Your task to perform on an android device: Show me the alarms in the clock app Image 0: 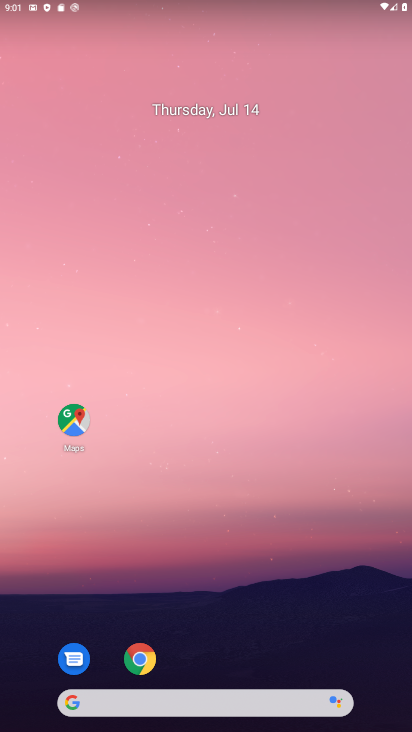
Step 0: press home button
Your task to perform on an android device: Show me the alarms in the clock app Image 1: 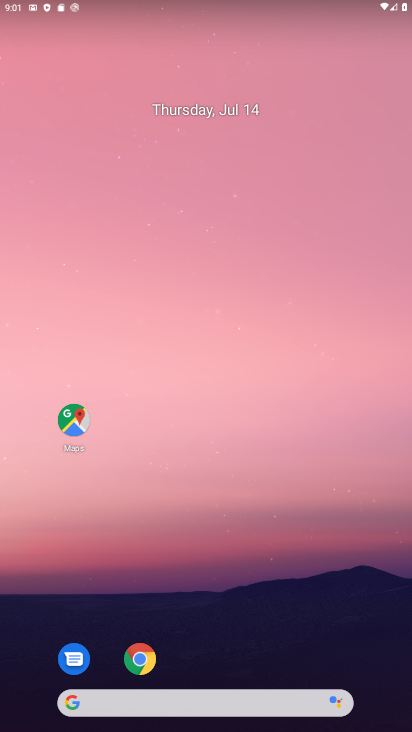
Step 1: drag from (291, 649) to (408, 100)
Your task to perform on an android device: Show me the alarms in the clock app Image 2: 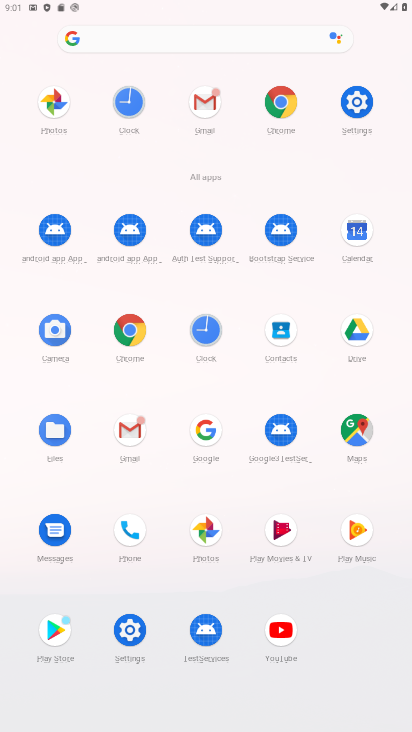
Step 2: click (127, 98)
Your task to perform on an android device: Show me the alarms in the clock app Image 3: 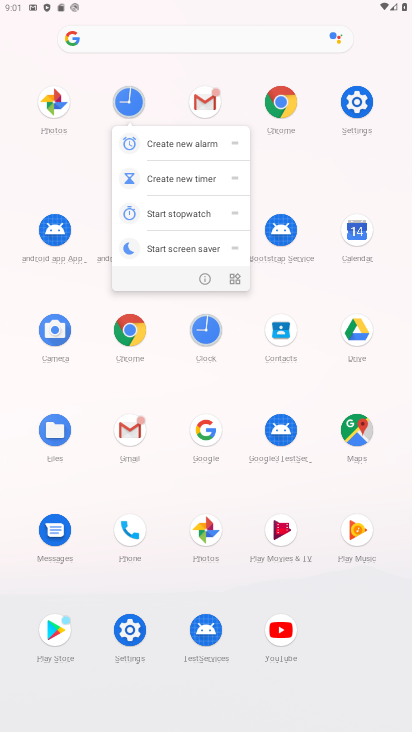
Step 3: click (127, 98)
Your task to perform on an android device: Show me the alarms in the clock app Image 4: 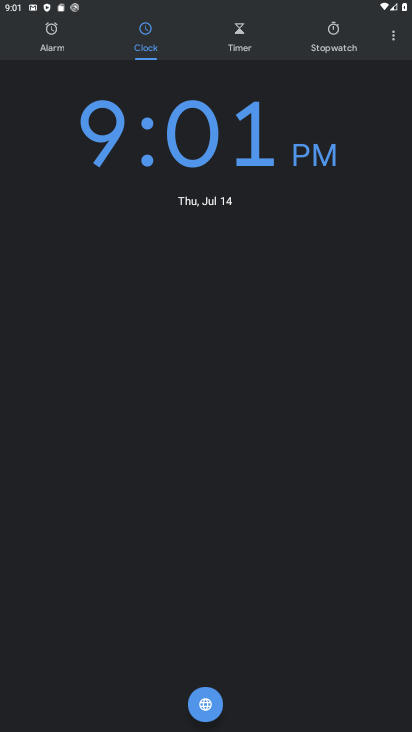
Step 4: click (45, 37)
Your task to perform on an android device: Show me the alarms in the clock app Image 5: 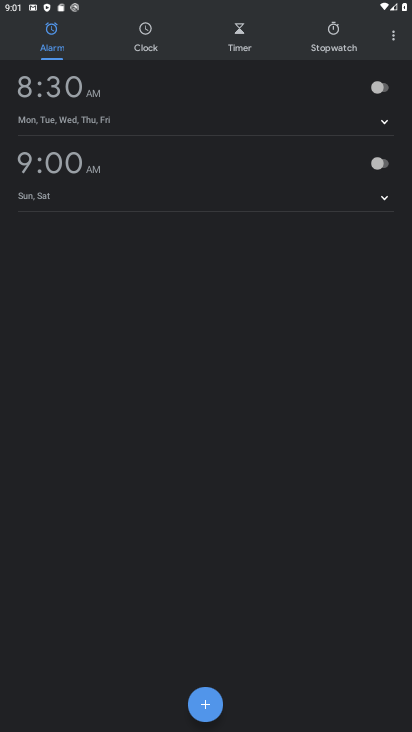
Step 5: task complete